Your task to perform on an android device: open chrome privacy settings Image 0: 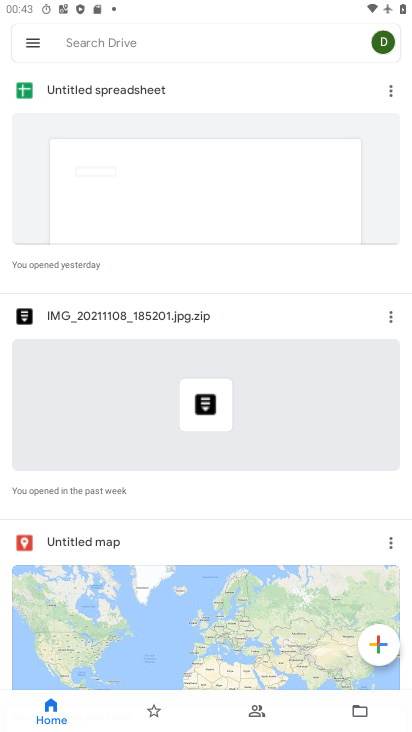
Step 0: press home button
Your task to perform on an android device: open chrome privacy settings Image 1: 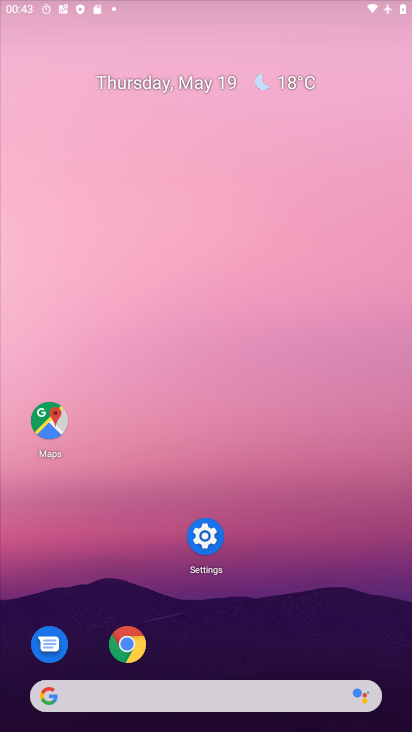
Step 1: drag from (348, 558) to (320, 79)
Your task to perform on an android device: open chrome privacy settings Image 2: 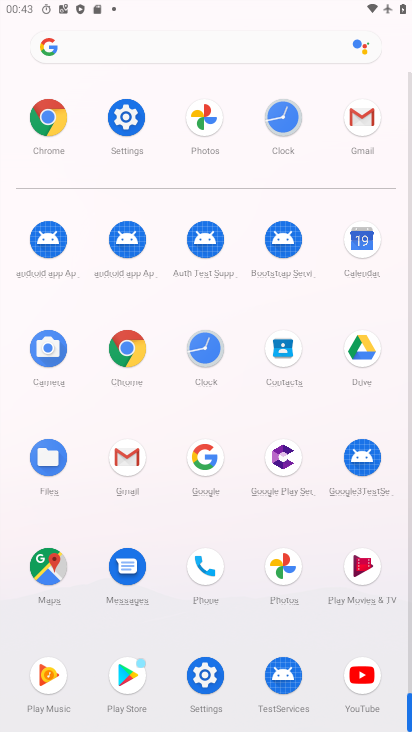
Step 2: click (46, 108)
Your task to perform on an android device: open chrome privacy settings Image 3: 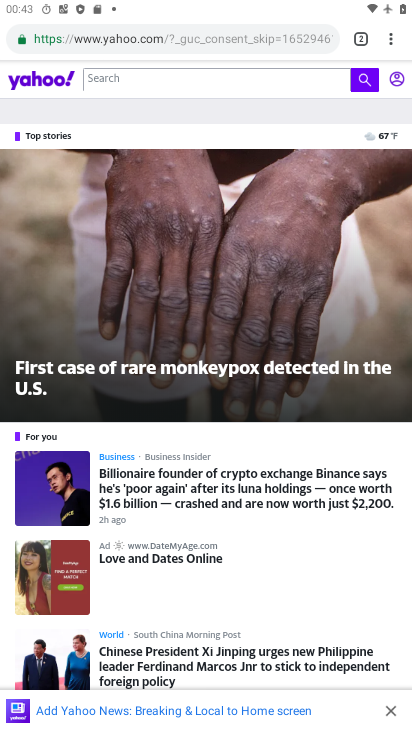
Step 3: drag from (391, 32) to (306, 472)
Your task to perform on an android device: open chrome privacy settings Image 4: 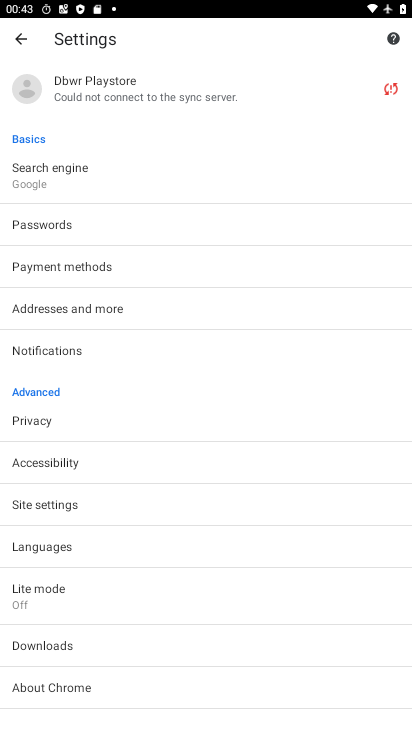
Step 4: drag from (215, 601) to (215, 390)
Your task to perform on an android device: open chrome privacy settings Image 5: 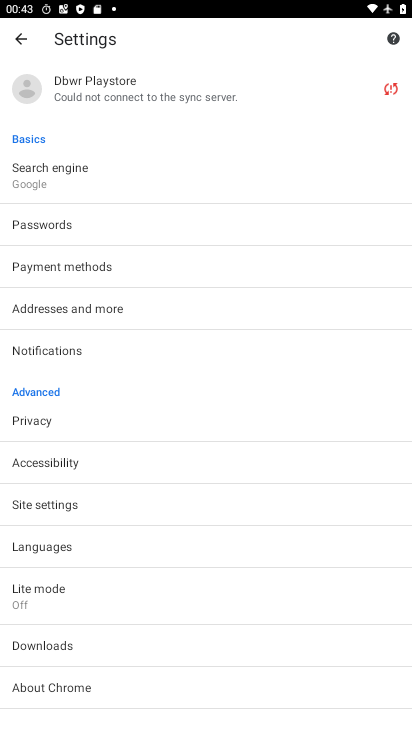
Step 5: click (34, 410)
Your task to perform on an android device: open chrome privacy settings Image 6: 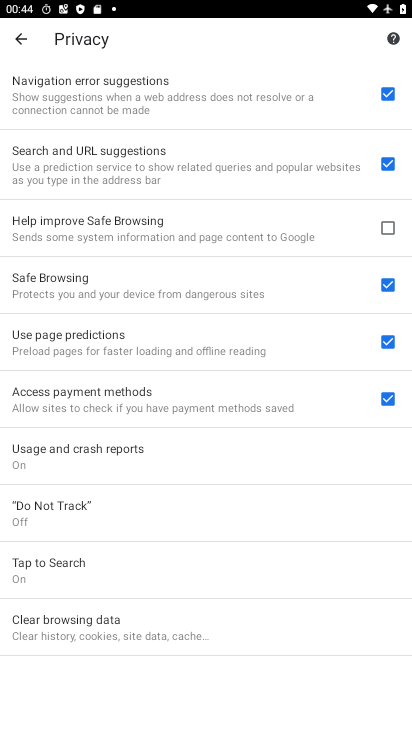
Step 6: task complete